Your task to perform on an android device: Show me productivity apps on the Play Store Image 0: 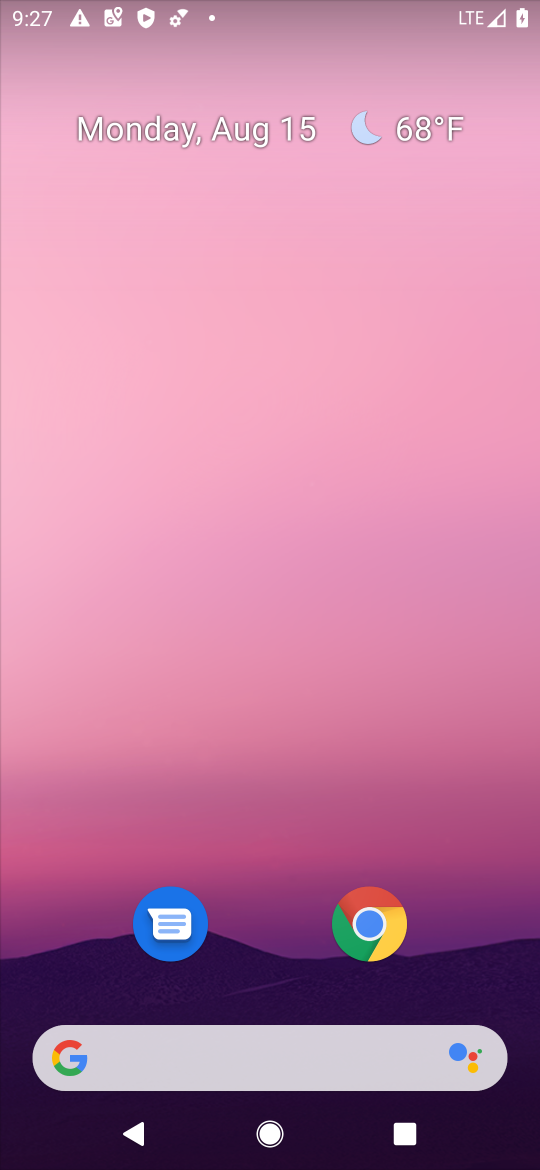
Step 0: drag from (493, 937) to (427, 160)
Your task to perform on an android device: Show me productivity apps on the Play Store Image 1: 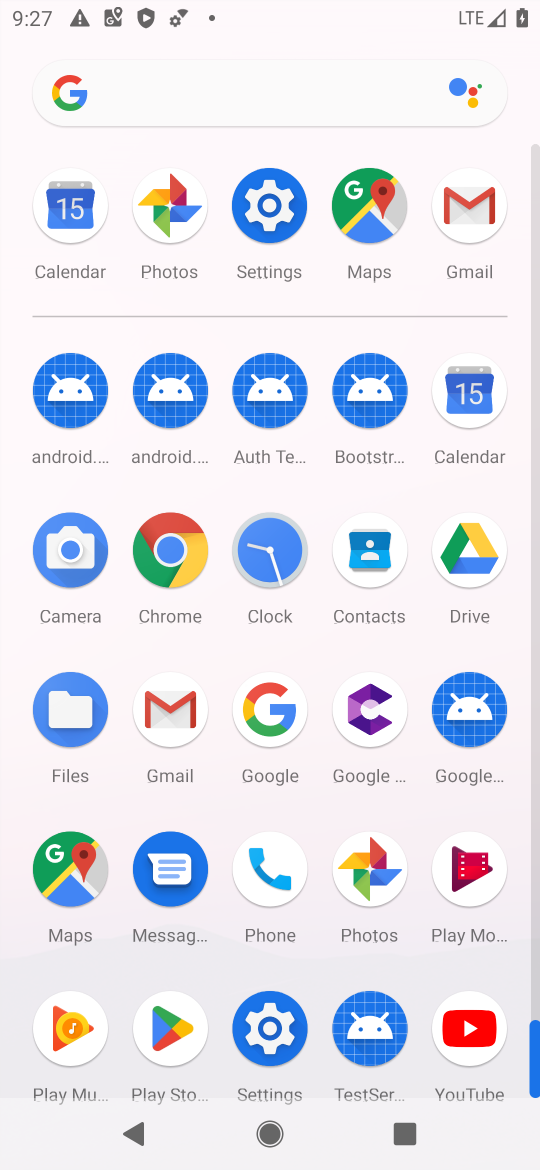
Step 1: click (174, 1027)
Your task to perform on an android device: Show me productivity apps on the Play Store Image 2: 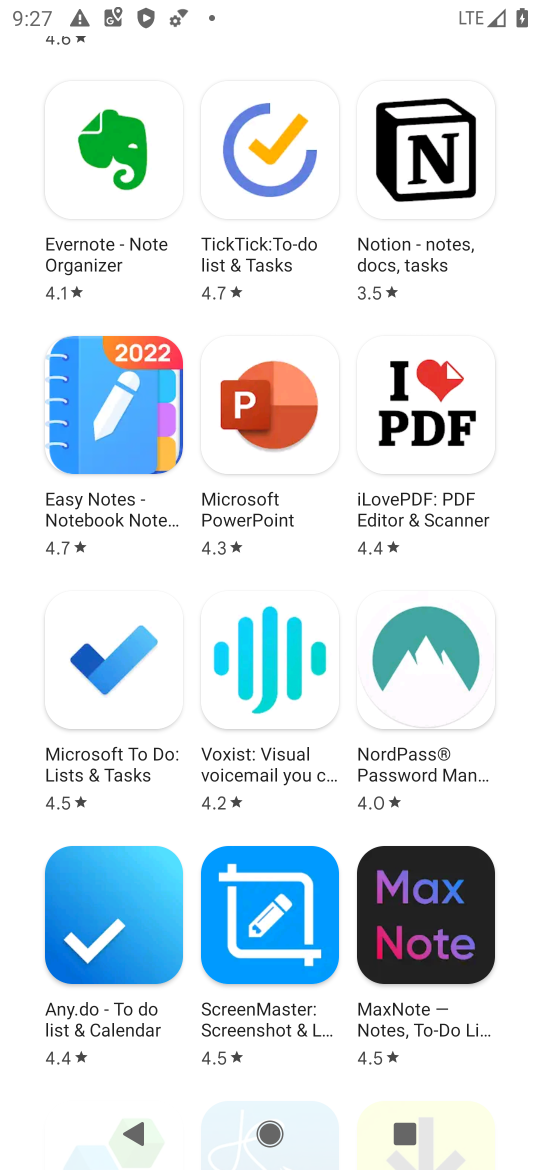
Step 2: task complete